Your task to perform on an android device: manage bookmarks in the chrome app Image 0: 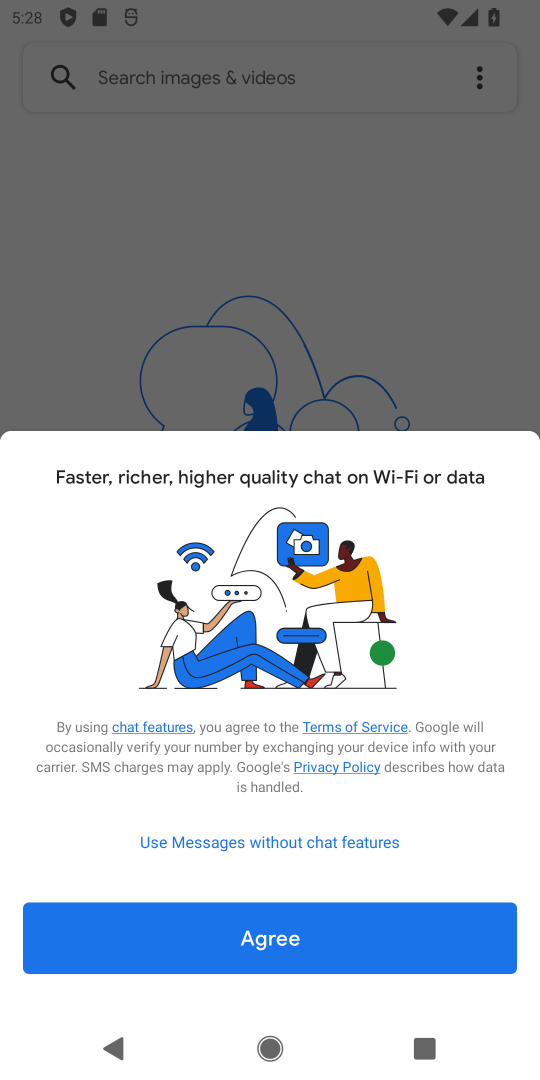
Step 0: press home button
Your task to perform on an android device: manage bookmarks in the chrome app Image 1: 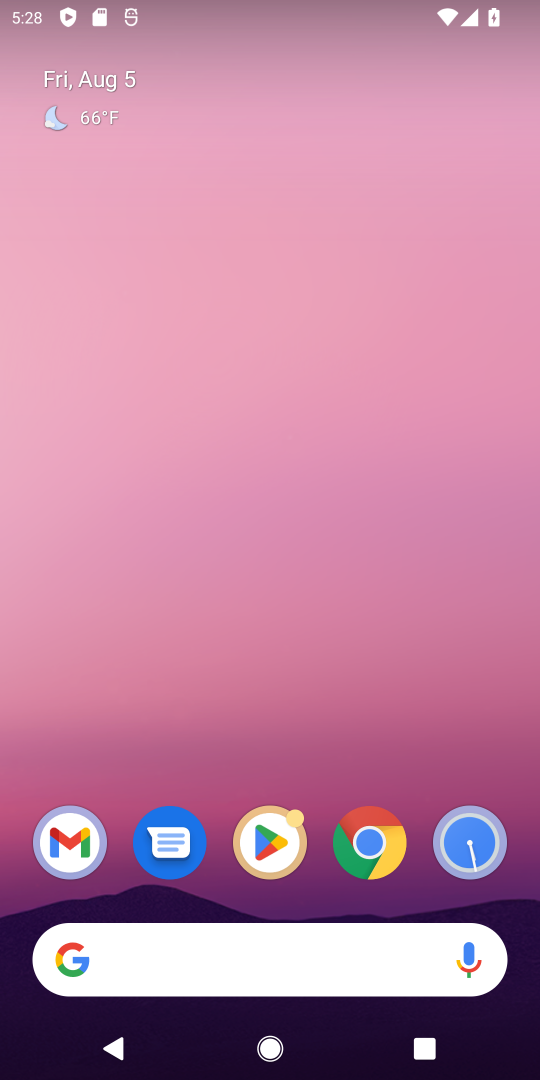
Step 1: click (344, 844)
Your task to perform on an android device: manage bookmarks in the chrome app Image 2: 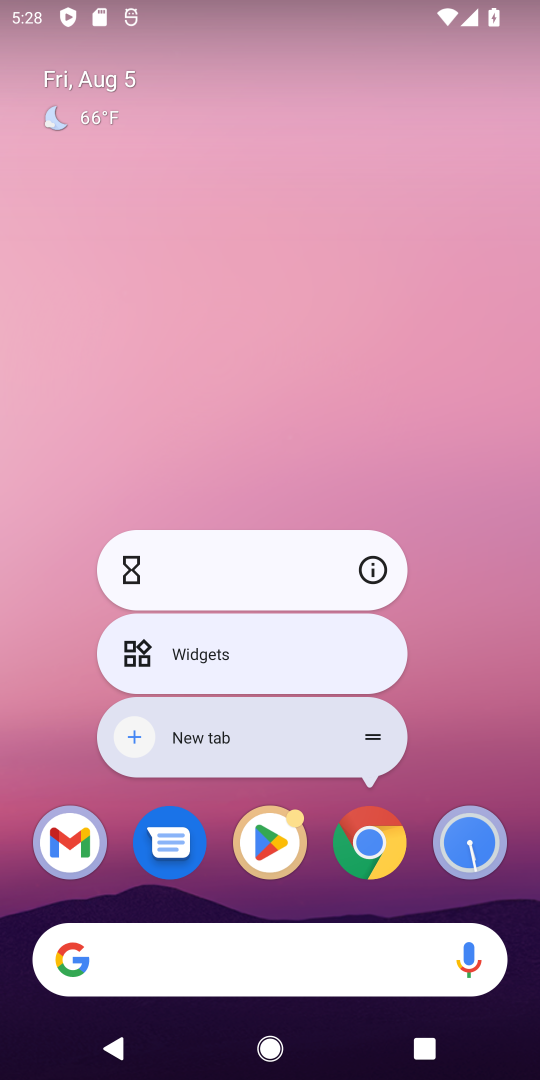
Step 2: click (344, 844)
Your task to perform on an android device: manage bookmarks in the chrome app Image 3: 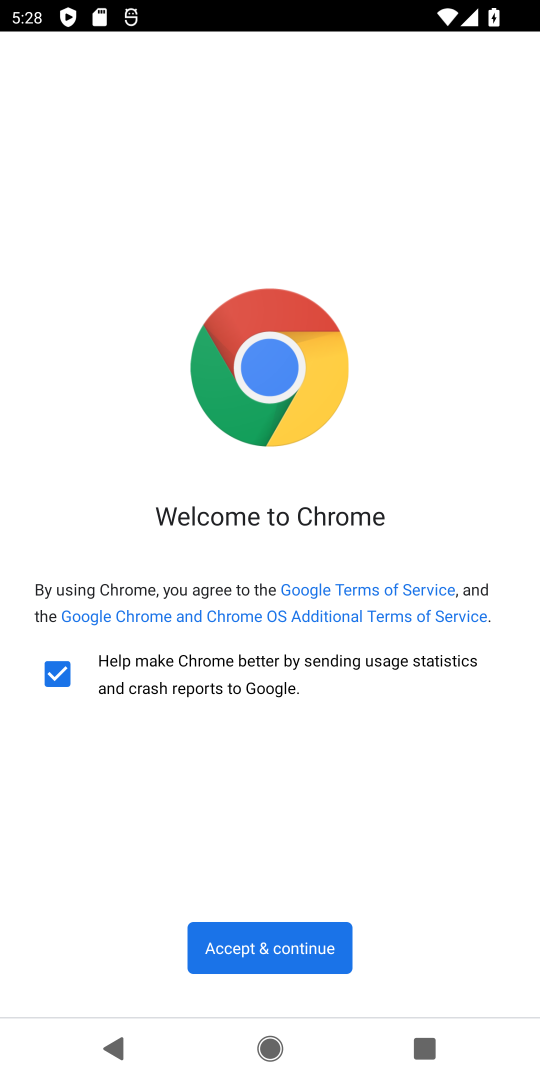
Step 3: click (266, 956)
Your task to perform on an android device: manage bookmarks in the chrome app Image 4: 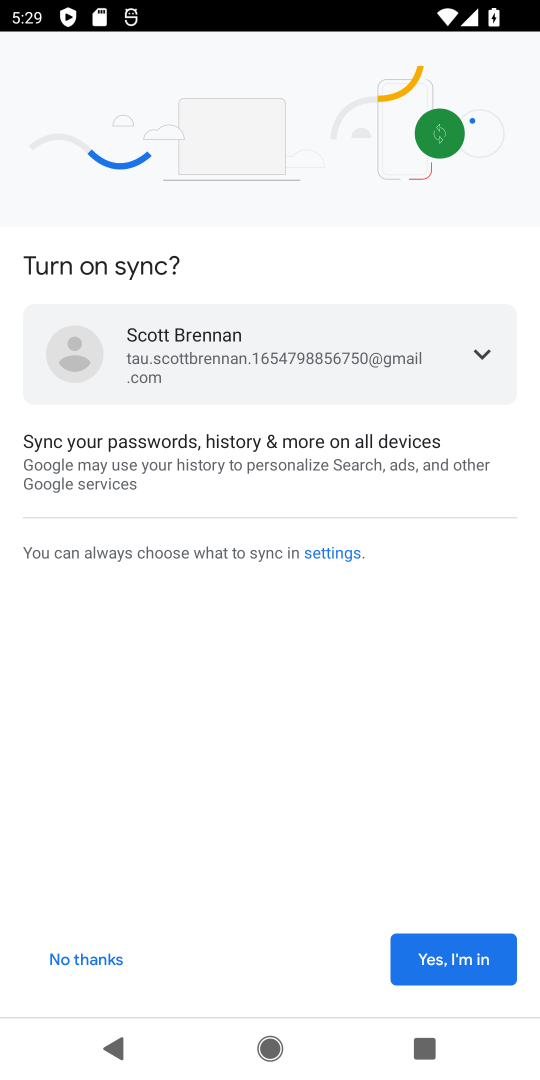
Step 4: click (84, 951)
Your task to perform on an android device: manage bookmarks in the chrome app Image 5: 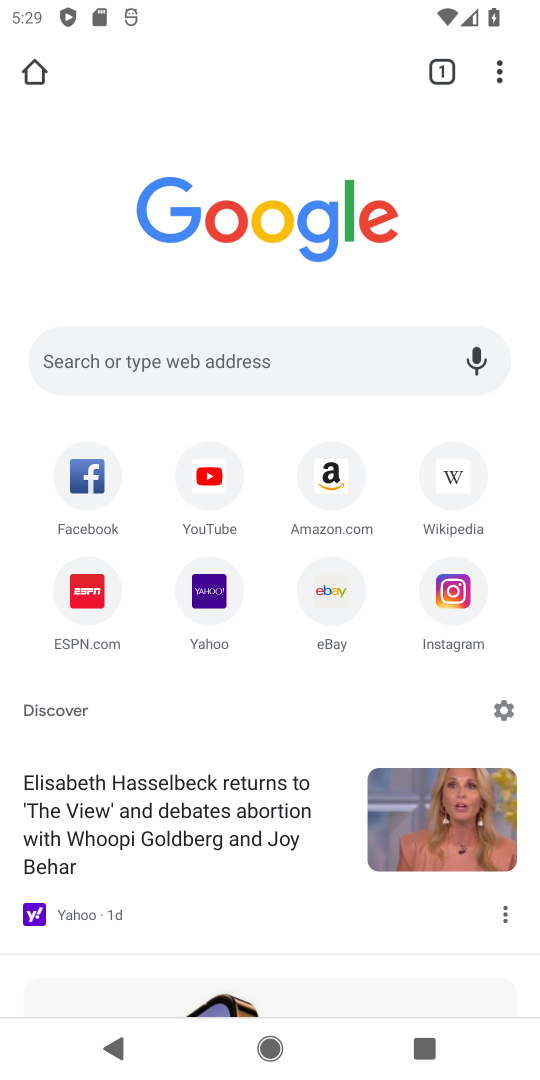
Step 5: click (508, 60)
Your task to perform on an android device: manage bookmarks in the chrome app Image 6: 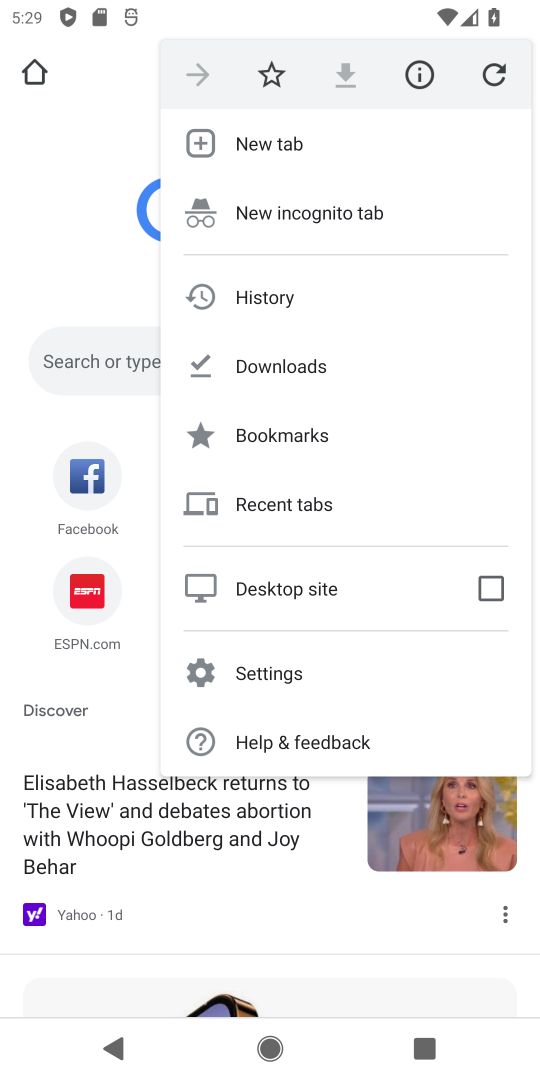
Step 6: click (310, 428)
Your task to perform on an android device: manage bookmarks in the chrome app Image 7: 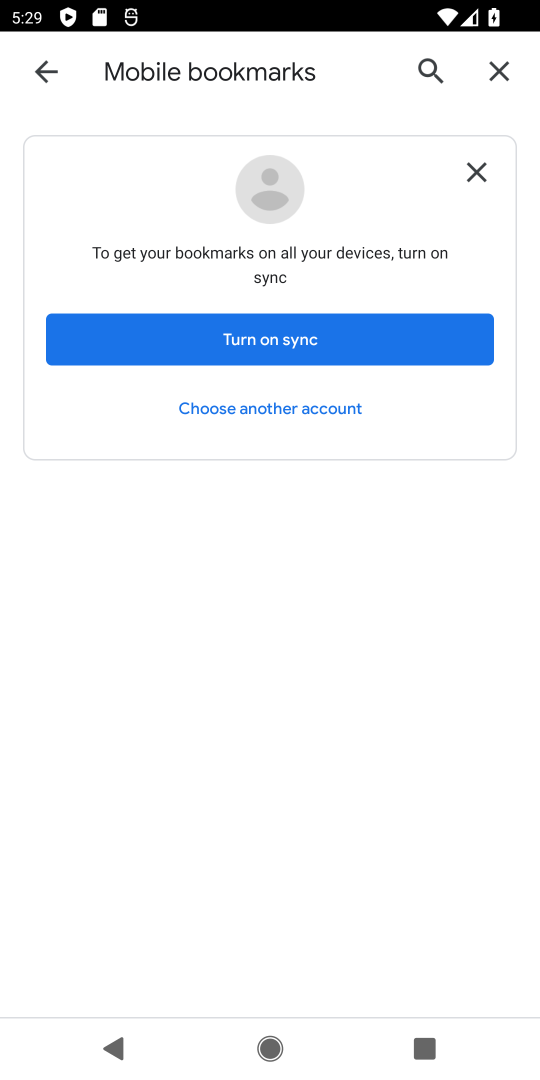
Step 7: click (474, 165)
Your task to perform on an android device: manage bookmarks in the chrome app Image 8: 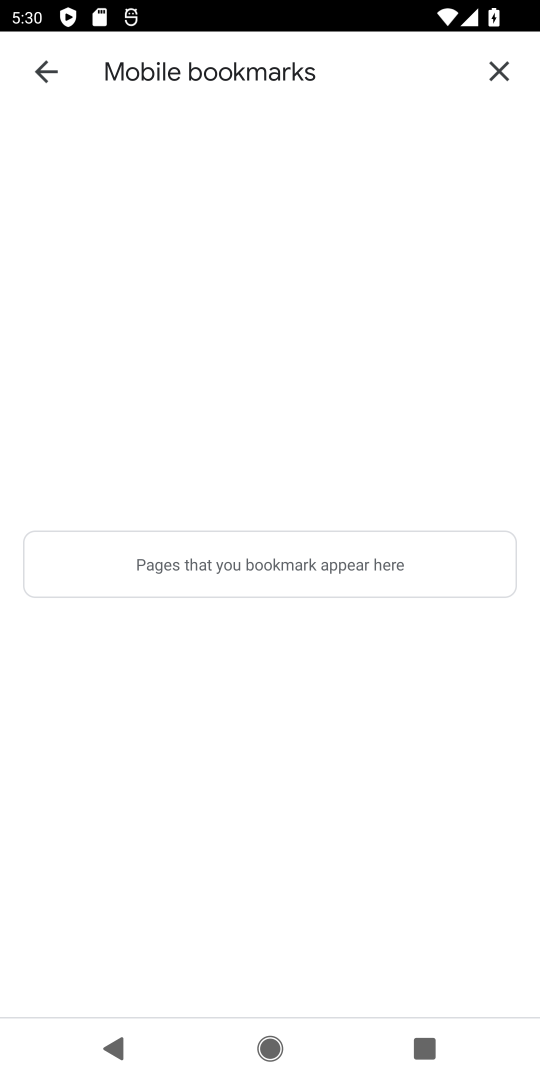
Step 8: task complete